Your task to perform on an android device: change the upload size in google photos Image 0: 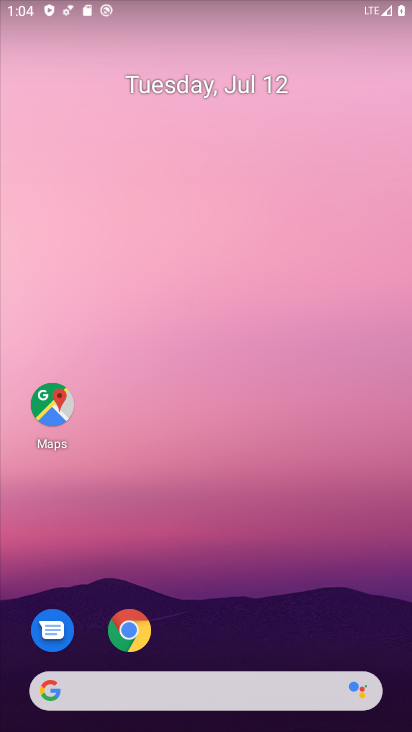
Step 0: drag from (367, 629) to (307, 133)
Your task to perform on an android device: change the upload size in google photos Image 1: 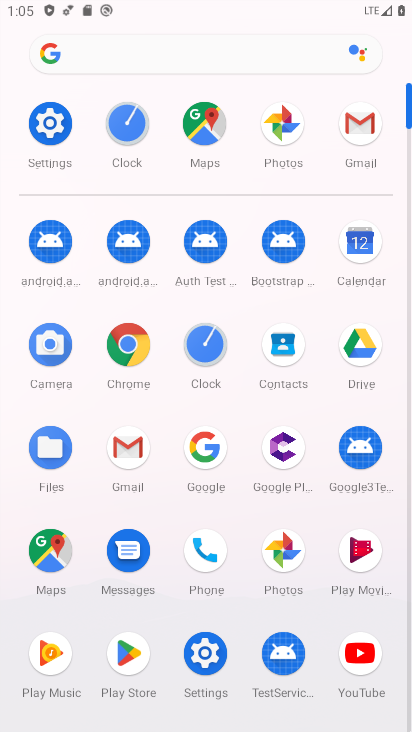
Step 1: click (282, 550)
Your task to perform on an android device: change the upload size in google photos Image 2: 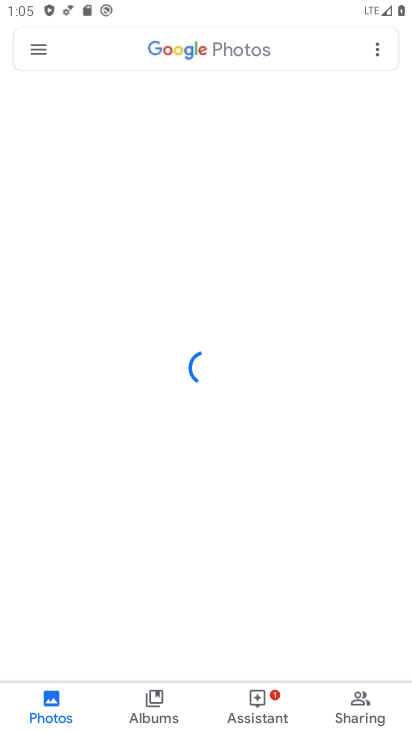
Step 2: click (37, 46)
Your task to perform on an android device: change the upload size in google photos Image 3: 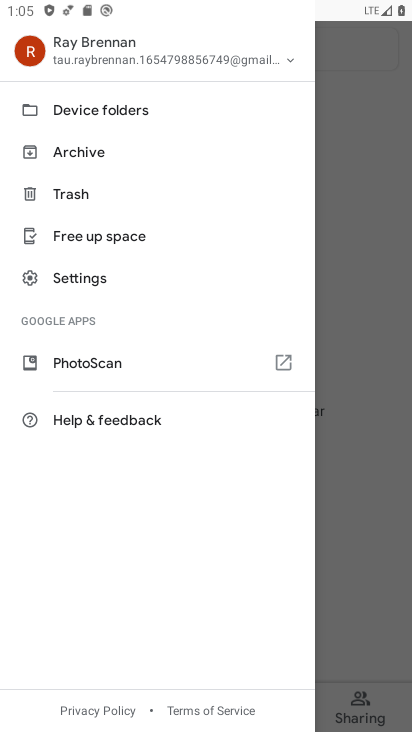
Step 3: click (86, 274)
Your task to perform on an android device: change the upload size in google photos Image 4: 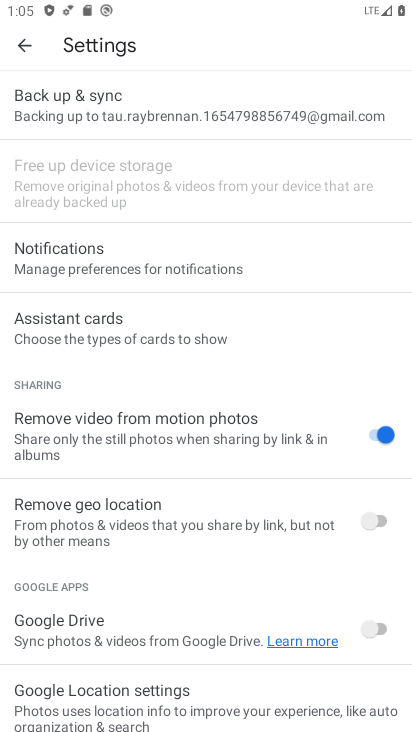
Step 4: click (83, 96)
Your task to perform on an android device: change the upload size in google photos Image 5: 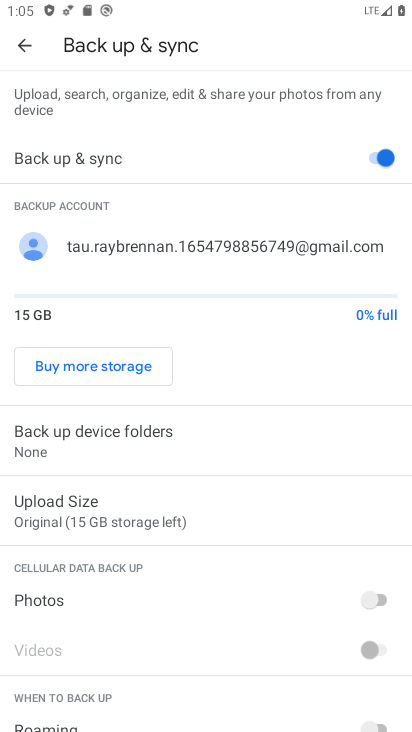
Step 5: click (72, 502)
Your task to perform on an android device: change the upload size in google photos Image 6: 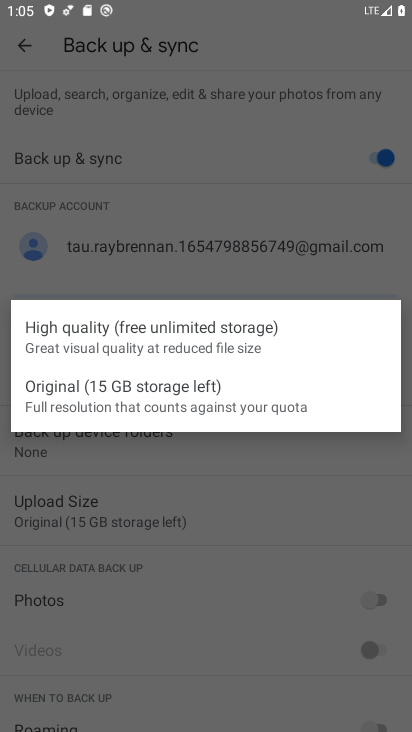
Step 6: click (98, 481)
Your task to perform on an android device: change the upload size in google photos Image 7: 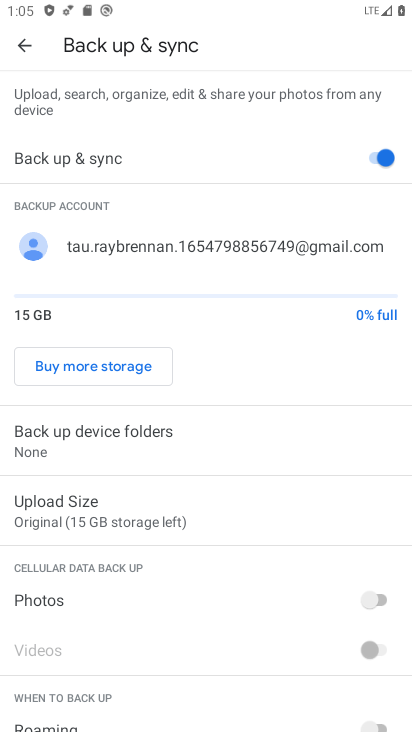
Step 7: click (82, 505)
Your task to perform on an android device: change the upload size in google photos Image 8: 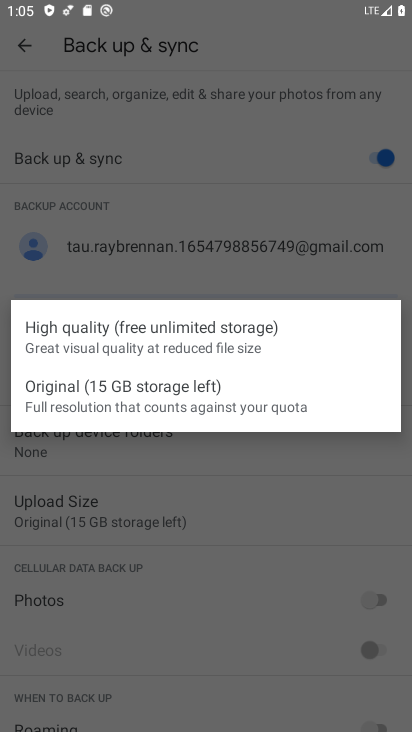
Step 8: click (83, 333)
Your task to perform on an android device: change the upload size in google photos Image 9: 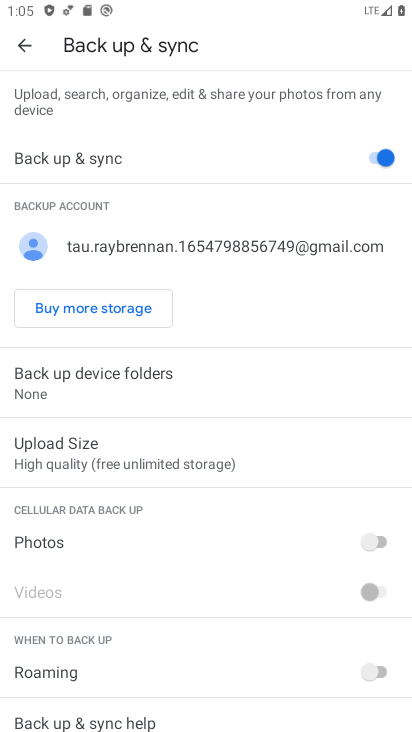
Step 9: task complete